Your task to perform on an android device: Go to CNN.com Image 0: 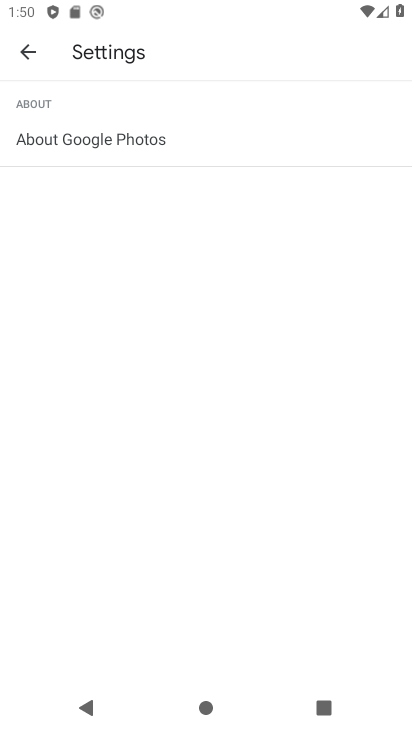
Step 0: press home button
Your task to perform on an android device: Go to CNN.com Image 1: 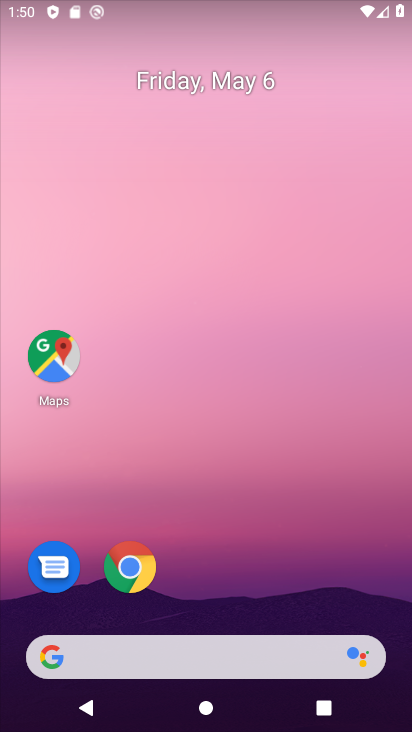
Step 1: click (129, 566)
Your task to perform on an android device: Go to CNN.com Image 2: 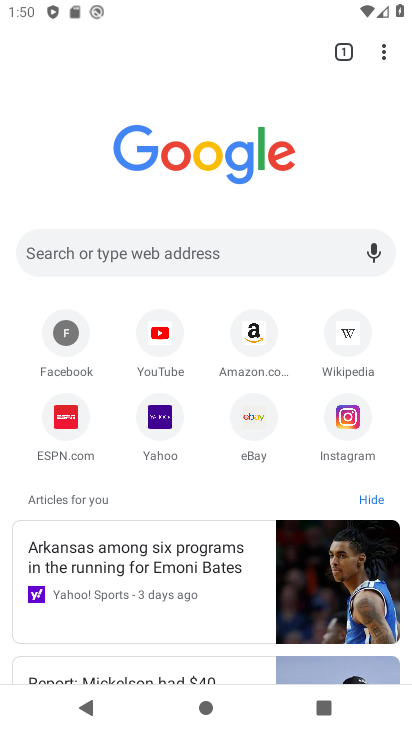
Step 2: click (94, 246)
Your task to perform on an android device: Go to CNN.com Image 3: 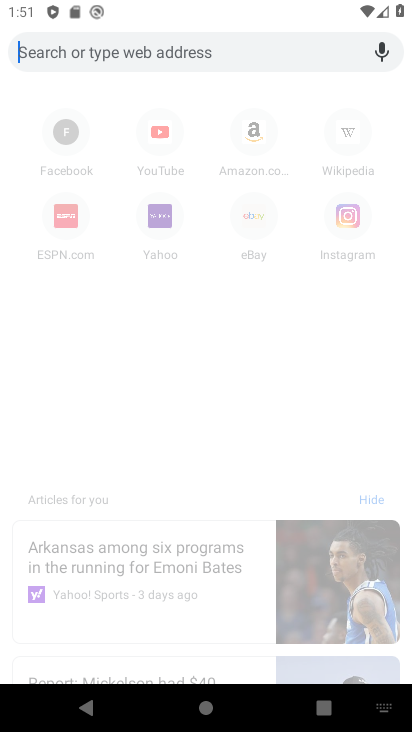
Step 3: type "cnn.com"
Your task to perform on an android device: Go to CNN.com Image 4: 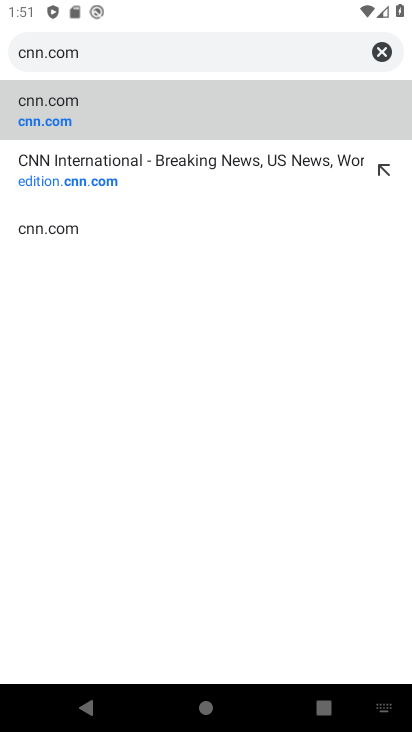
Step 4: click (41, 113)
Your task to perform on an android device: Go to CNN.com Image 5: 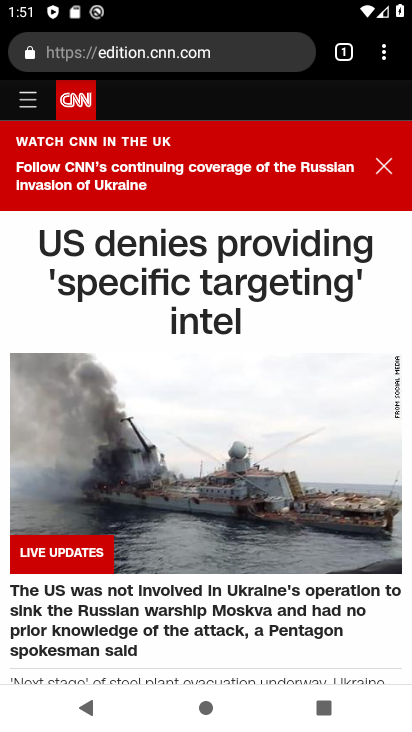
Step 5: task complete